Your task to perform on an android device: allow cookies in the chrome app Image 0: 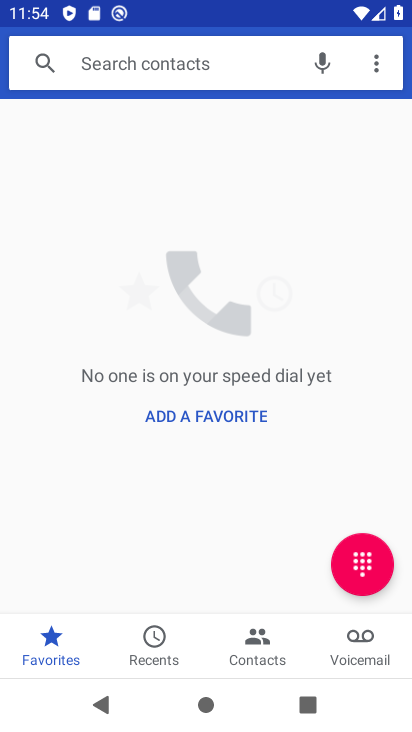
Step 0: press home button
Your task to perform on an android device: allow cookies in the chrome app Image 1: 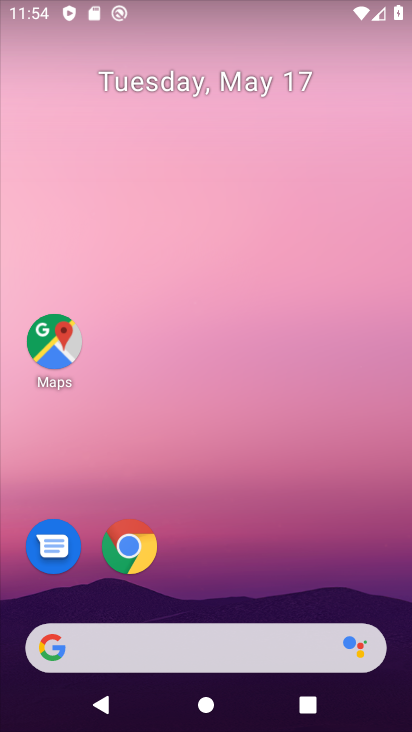
Step 1: drag from (199, 522) to (263, 160)
Your task to perform on an android device: allow cookies in the chrome app Image 2: 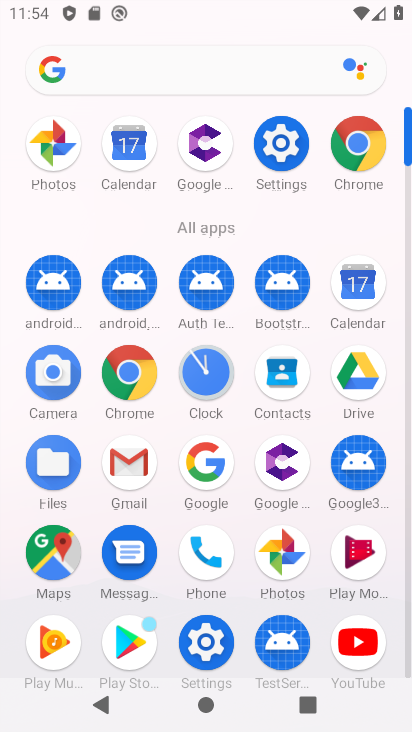
Step 2: click (135, 373)
Your task to perform on an android device: allow cookies in the chrome app Image 3: 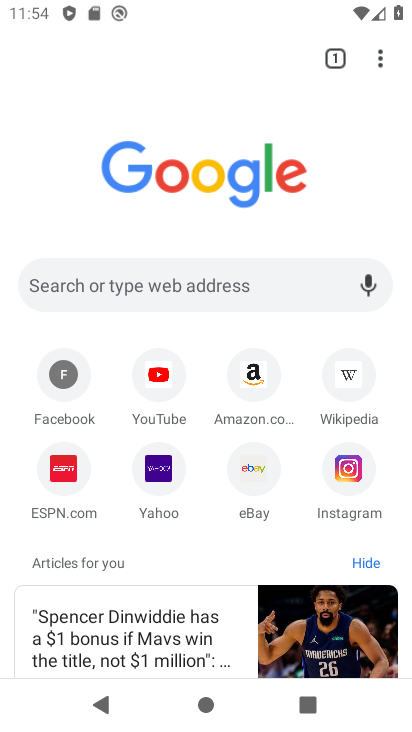
Step 3: drag from (403, 67) to (282, 502)
Your task to perform on an android device: allow cookies in the chrome app Image 4: 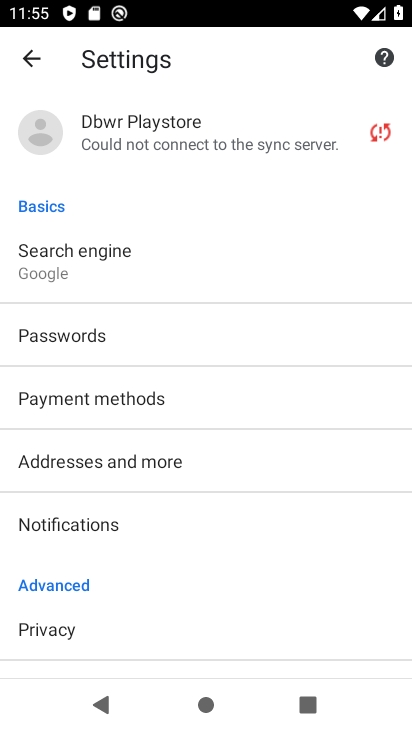
Step 4: drag from (182, 631) to (283, 230)
Your task to perform on an android device: allow cookies in the chrome app Image 5: 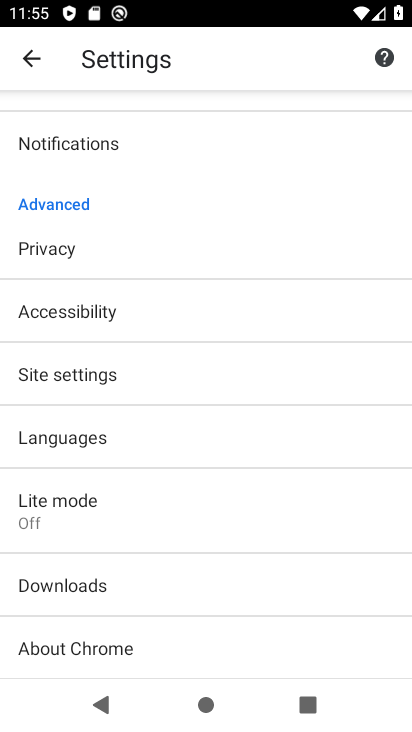
Step 5: click (186, 381)
Your task to perform on an android device: allow cookies in the chrome app Image 6: 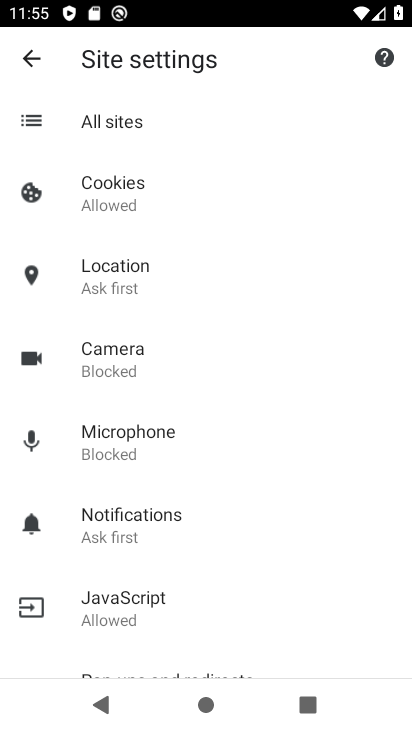
Step 6: click (275, 202)
Your task to perform on an android device: allow cookies in the chrome app Image 7: 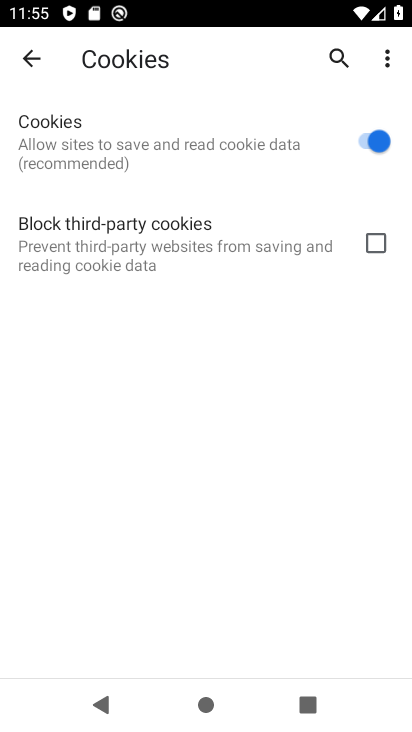
Step 7: task complete